Your task to perform on an android device: Search for flights from Sydney to Buenos aires Image 0: 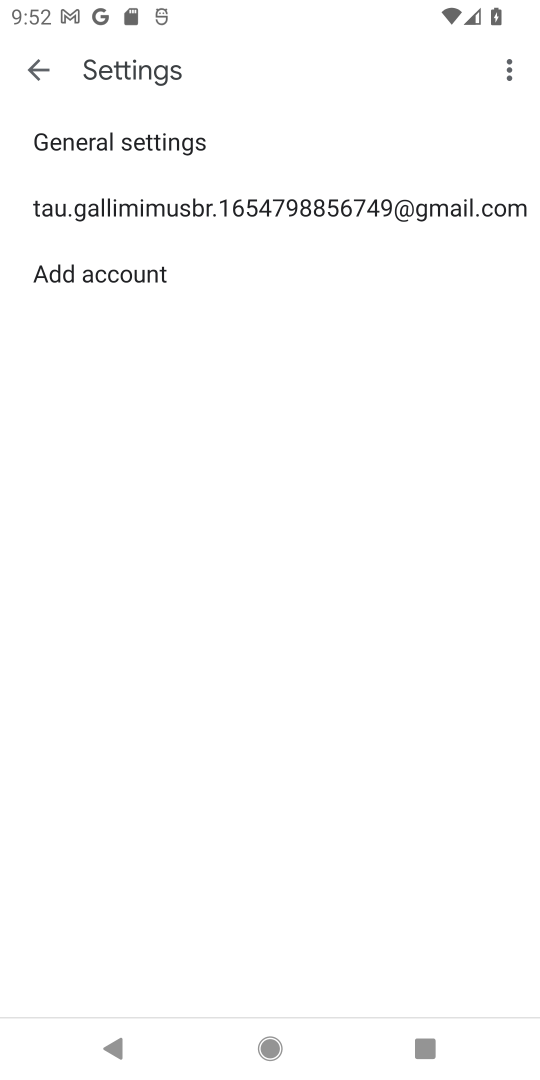
Step 0: press home button
Your task to perform on an android device: Search for flights from Sydney to Buenos aires Image 1: 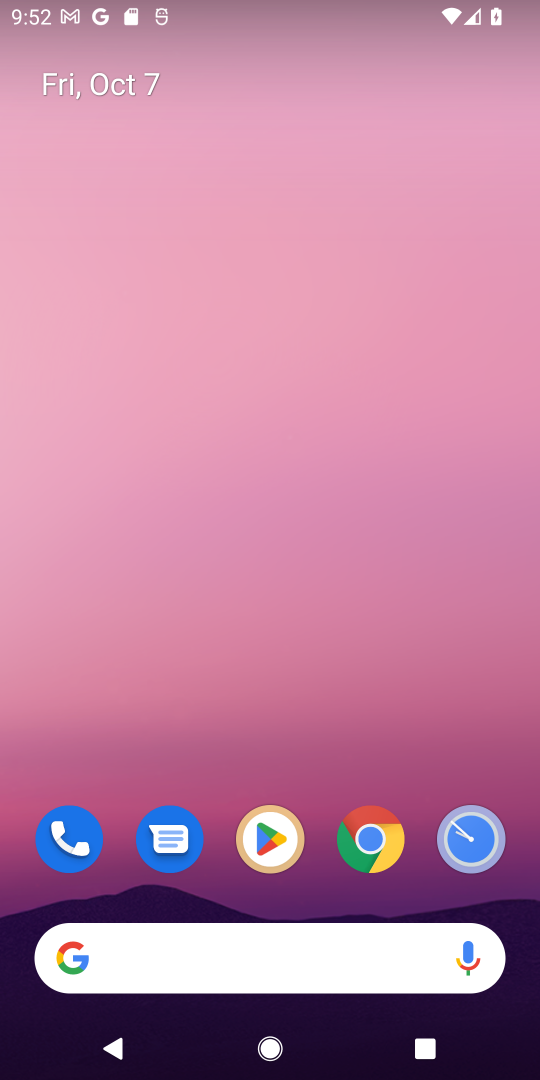
Step 1: click (361, 839)
Your task to perform on an android device: Search for flights from Sydney to Buenos aires Image 2: 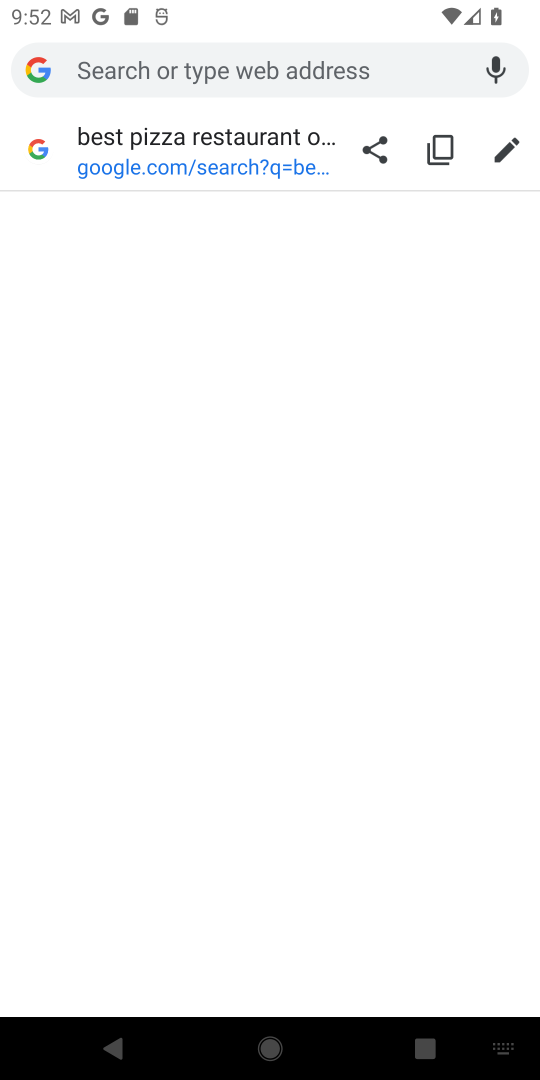
Step 2: type "flight search"
Your task to perform on an android device: Search for flights from Sydney to Buenos aires Image 3: 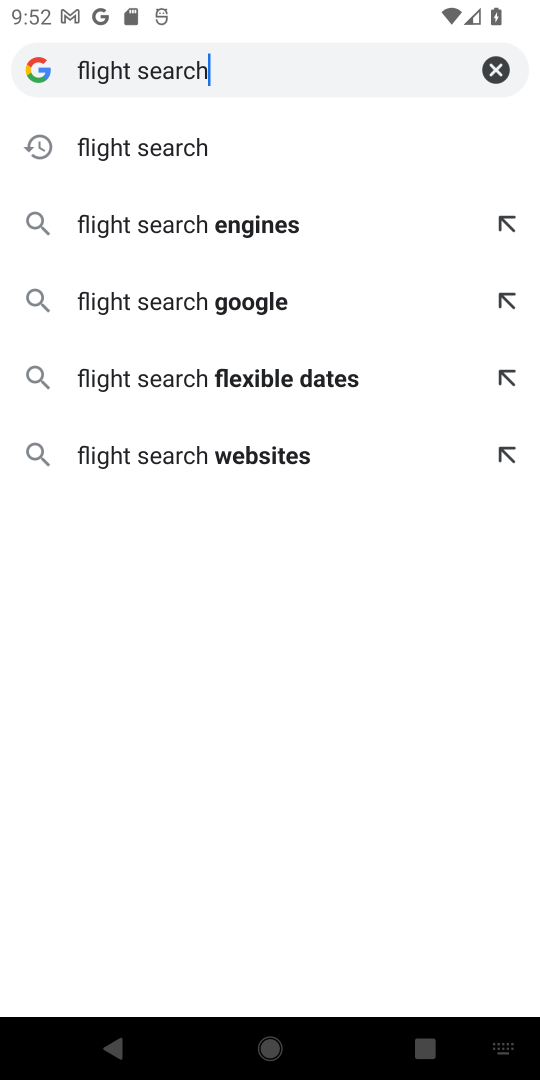
Step 3: click (139, 153)
Your task to perform on an android device: Search for flights from Sydney to Buenos aires Image 4: 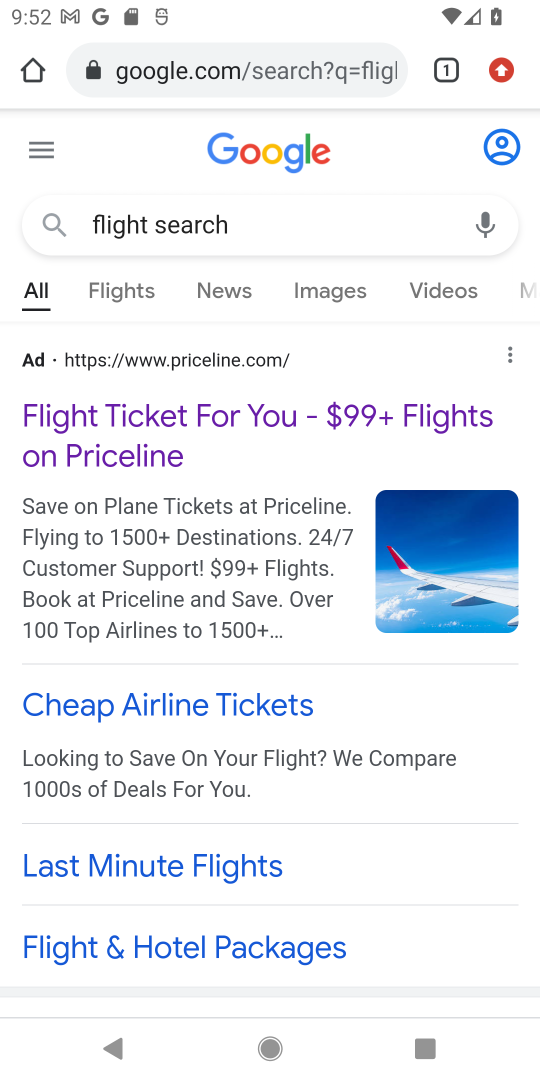
Step 4: click (142, 416)
Your task to perform on an android device: Search for flights from Sydney to Buenos aires Image 5: 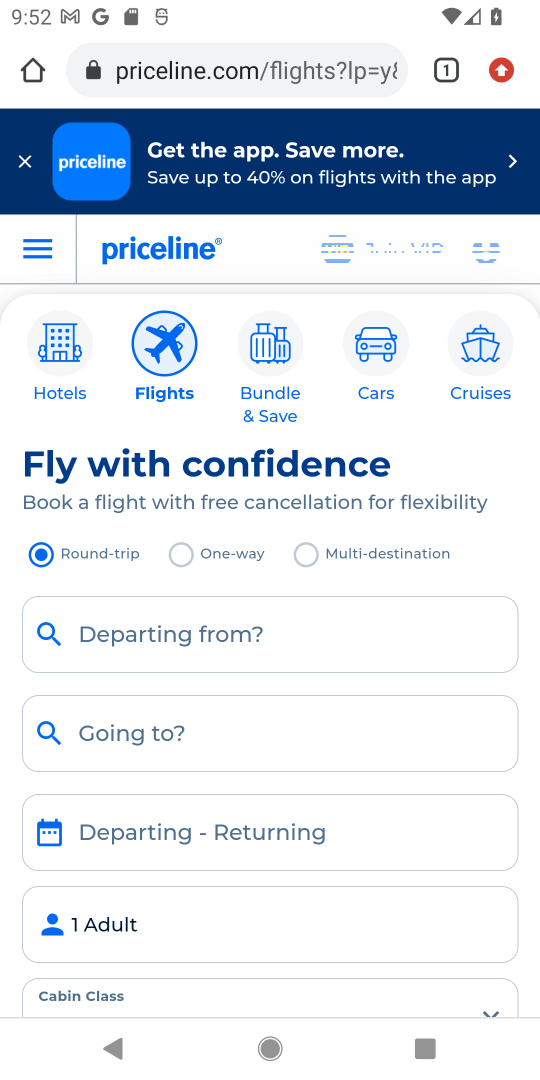
Step 5: click (234, 646)
Your task to perform on an android device: Search for flights from Sydney to Buenos aires Image 6: 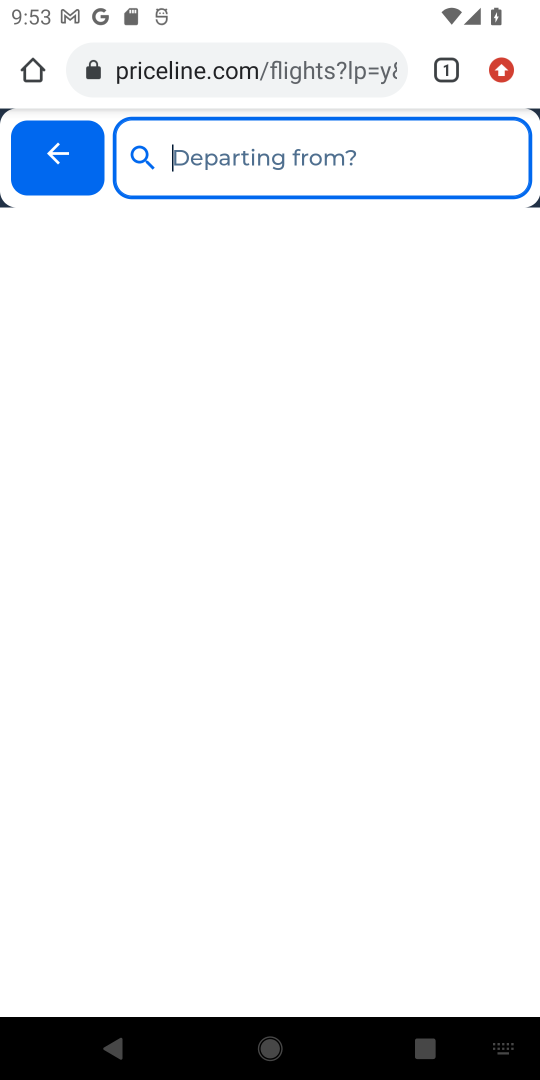
Step 6: type "sydney"
Your task to perform on an android device: Search for flights from Sydney to Buenos aires Image 7: 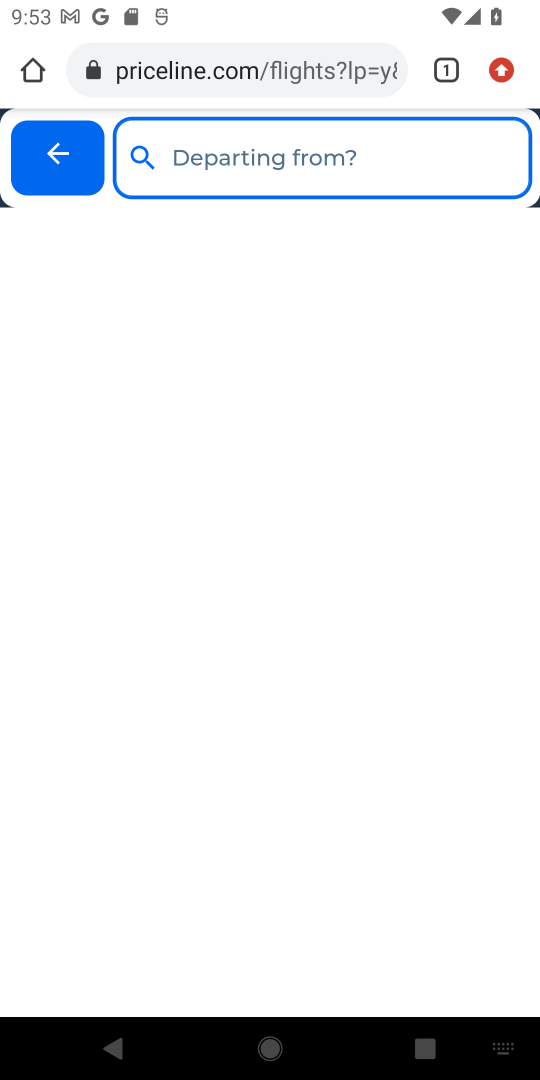
Step 7: type ""
Your task to perform on an android device: Search for flights from Sydney to Buenos aires Image 8: 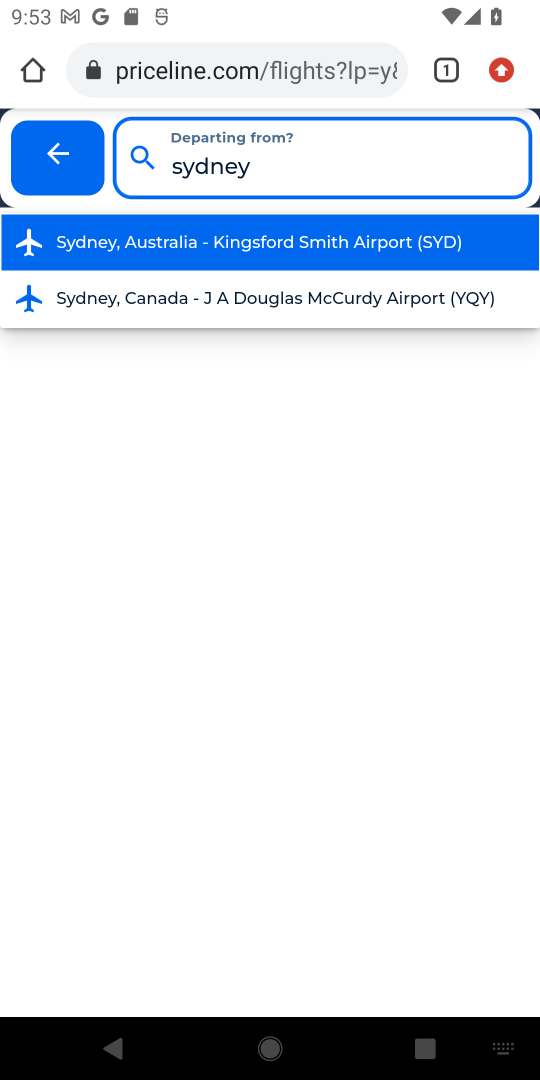
Step 8: click (182, 296)
Your task to perform on an android device: Search for flights from Sydney to Buenos aires Image 9: 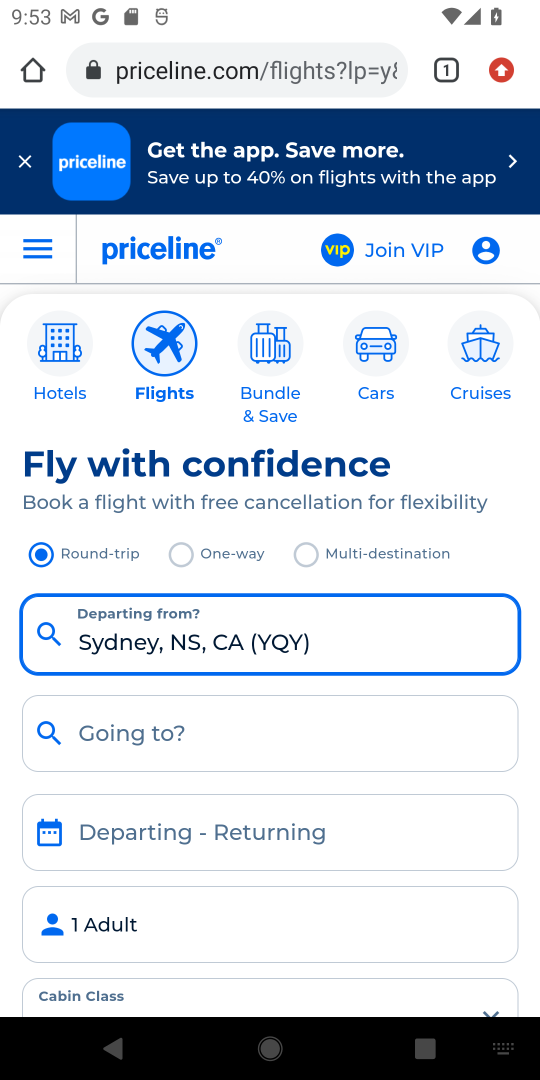
Step 9: click (92, 742)
Your task to perform on an android device: Search for flights from Sydney to Buenos aires Image 10: 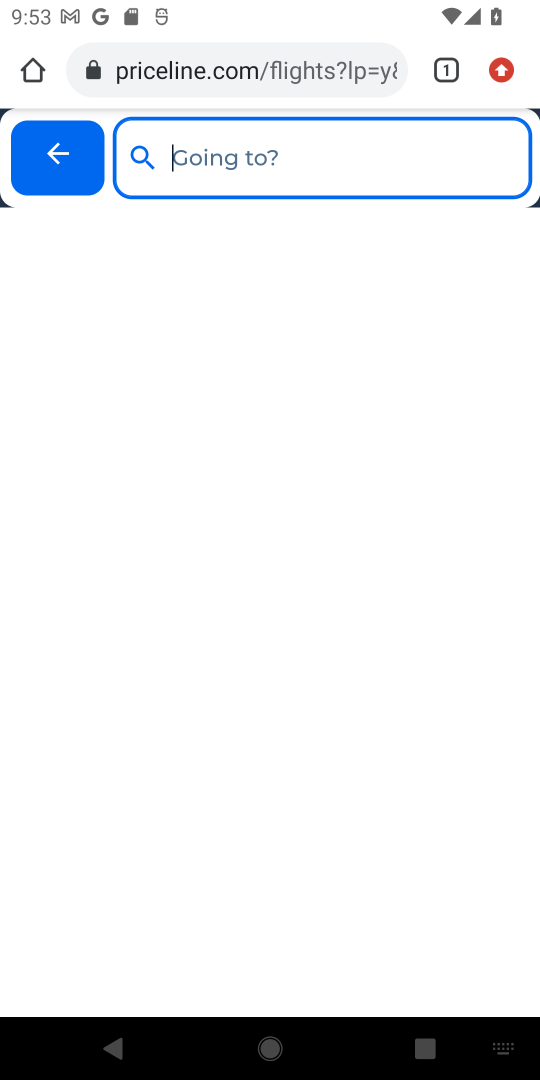
Step 10: type "buenos"
Your task to perform on an android device: Search for flights from Sydney to Buenos aires Image 11: 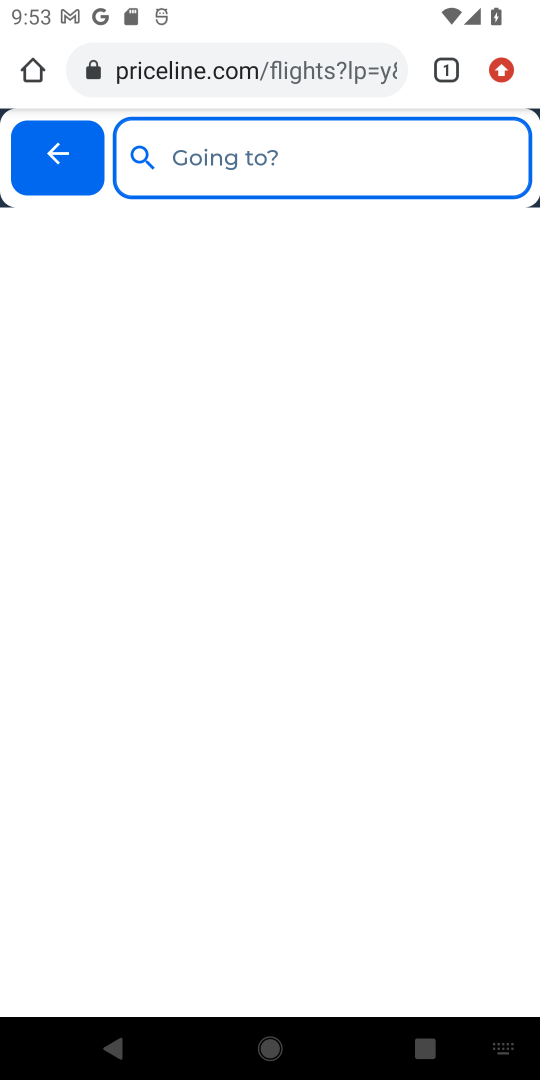
Step 11: type ""
Your task to perform on an android device: Search for flights from Sydney to Buenos aires Image 12: 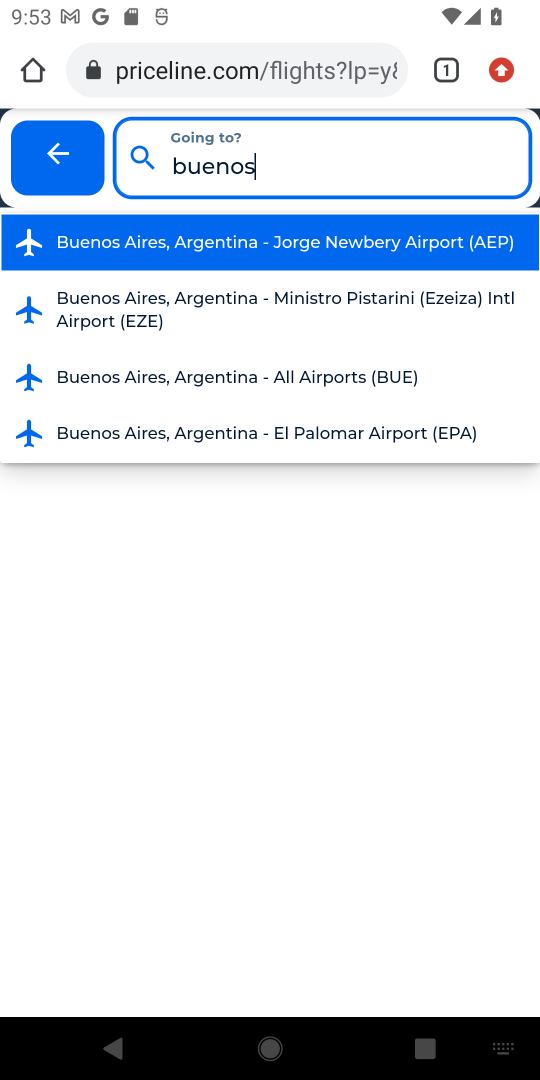
Step 12: click (110, 307)
Your task to perform on an android device: Search for flights from Sydney to Buenos aires Image 13: 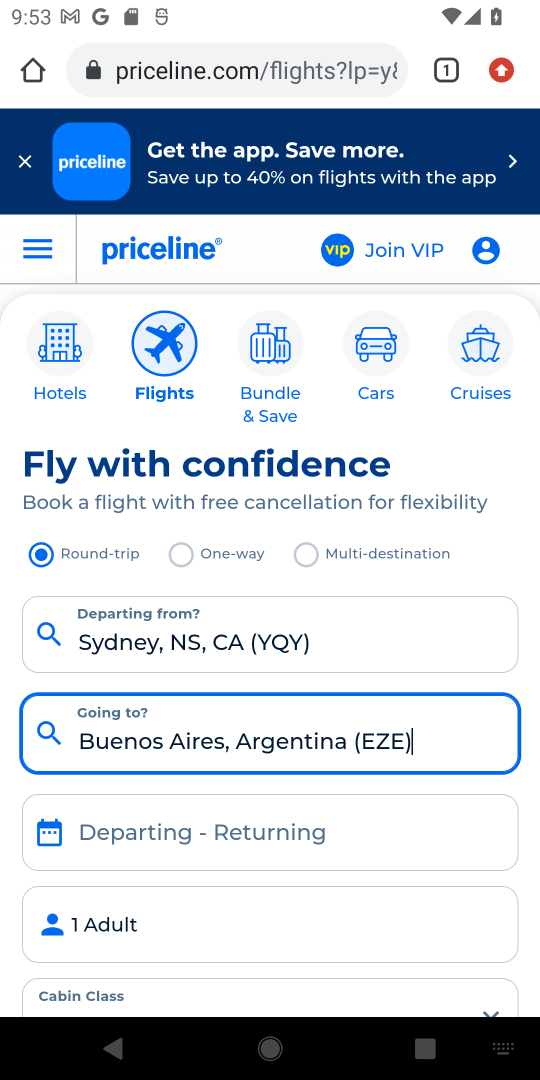
Step 13: drag from (518, 859) to (518, 458)
Your task to perform on an android device: Search for flights from Sydney to Buenos aires Image 14: 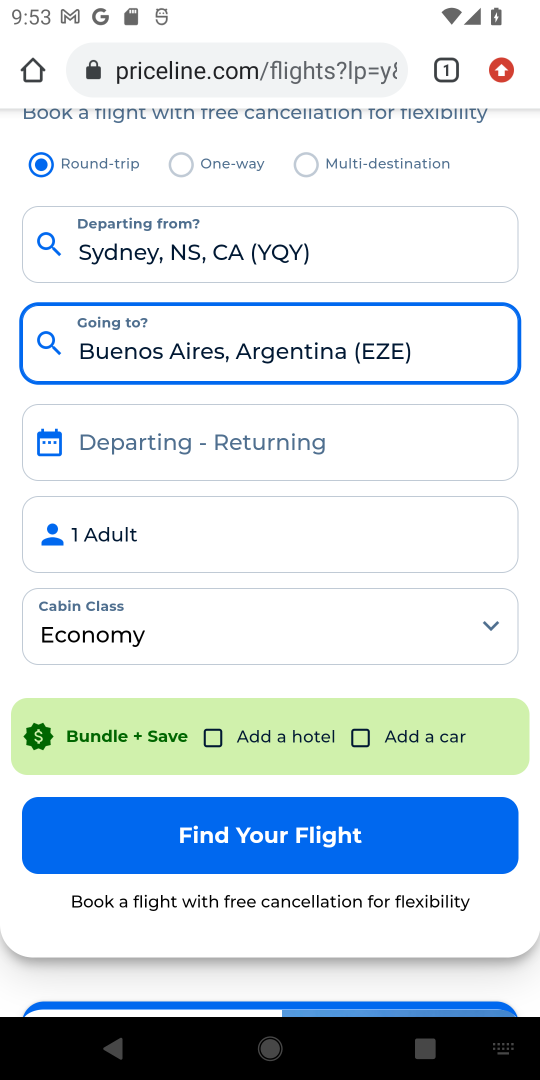
Step 14: click (117, 431)
Your task to perform on an android device: Search for flights from Sydney to Buenos aires Image 15: 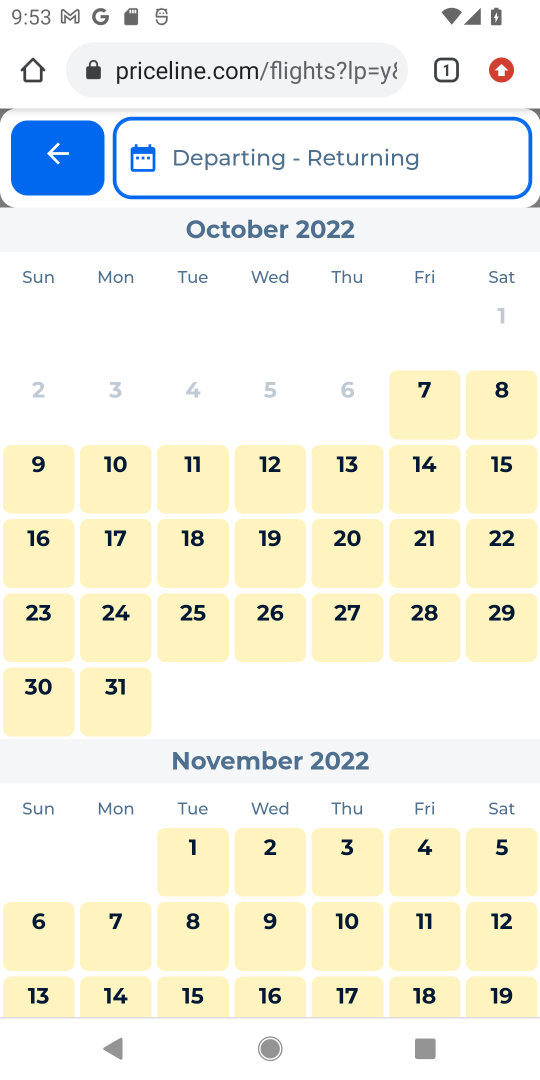
Step 15: click (200, 461)
Your task to perform on an android device: Search for flights from Sydney to Buenos aires Image 16: 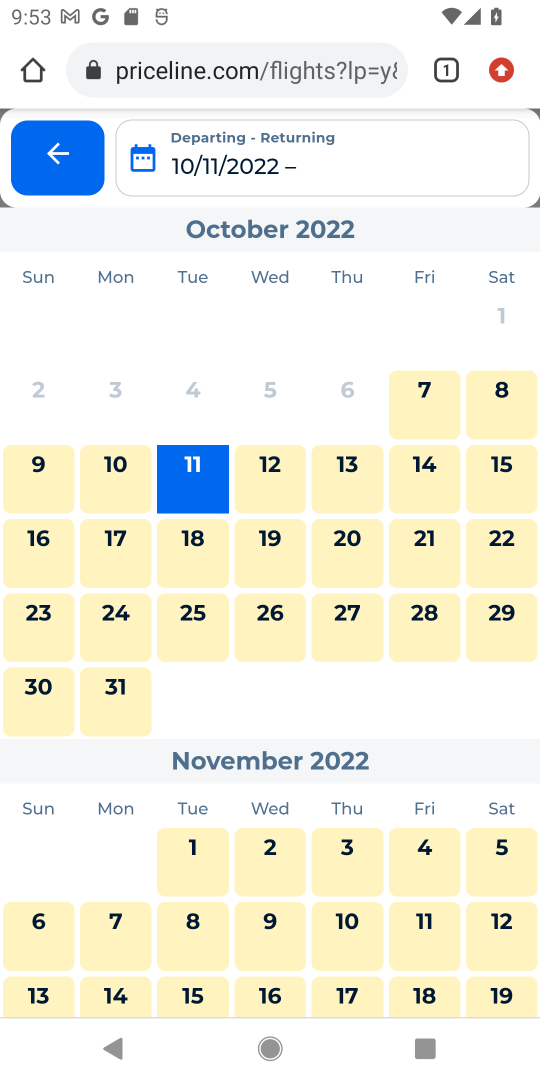
Step 16: click (412, 536)
Your task to perform on an android device: Search for flights from Sydney to Buenos aires Image 17: 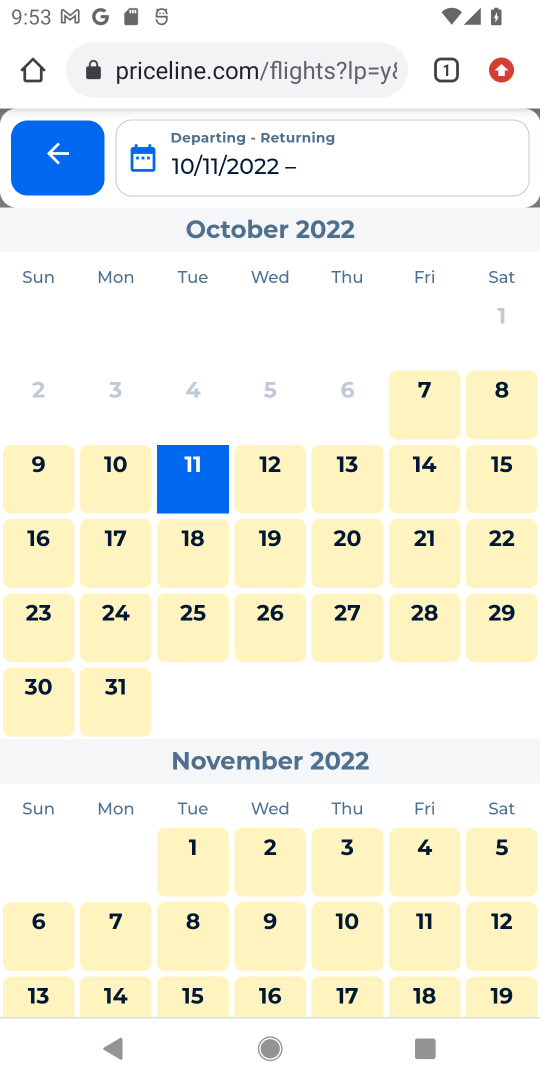
Step 17: click (428, 534)
Your task to perform on an android device: Search for flights from Sydney to Buenos aires Image 18: 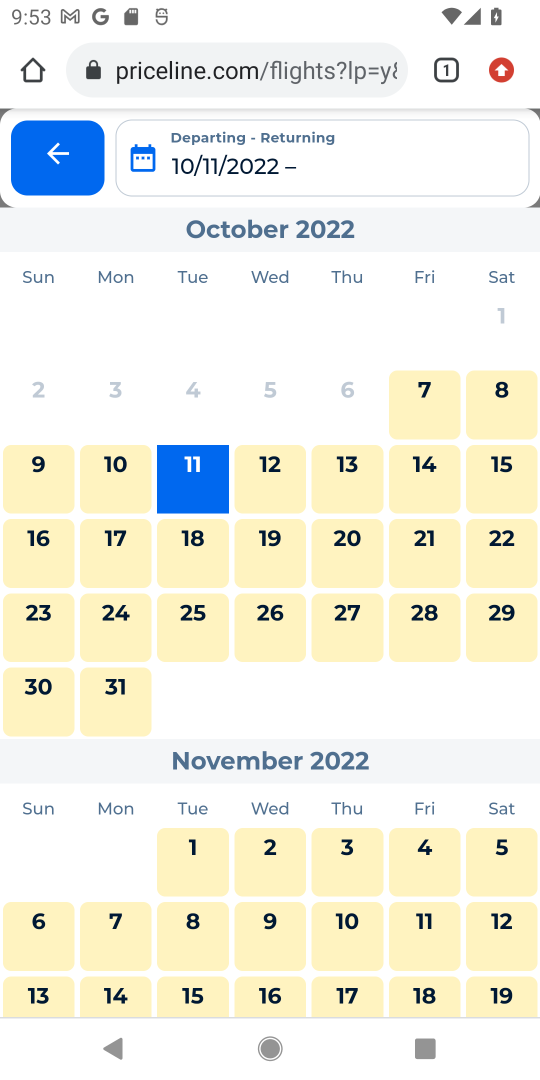
Step 18: click (337, 533)
Your task to perform on an android device: Search for flights from Sydney to Buenos aires Image 19: 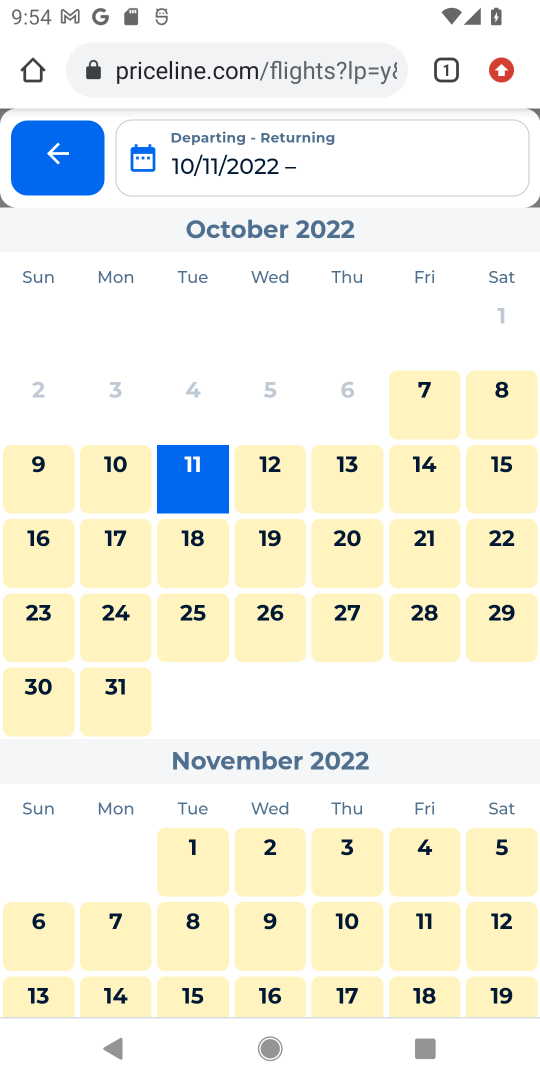
Step 19: click (301, 136)
Your task to perform on an android device: Search for flights from Sydney to Buenos aires Image 20: 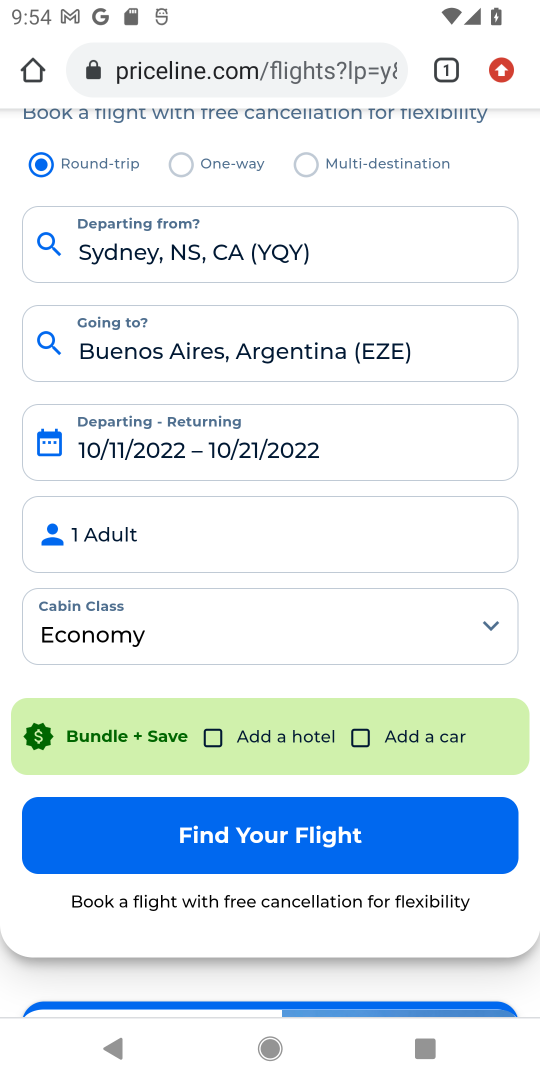
Step 20: click (198, 832)
Your task to perform on an android device: Search for flights from Sydney to Buenos aires Image 21: 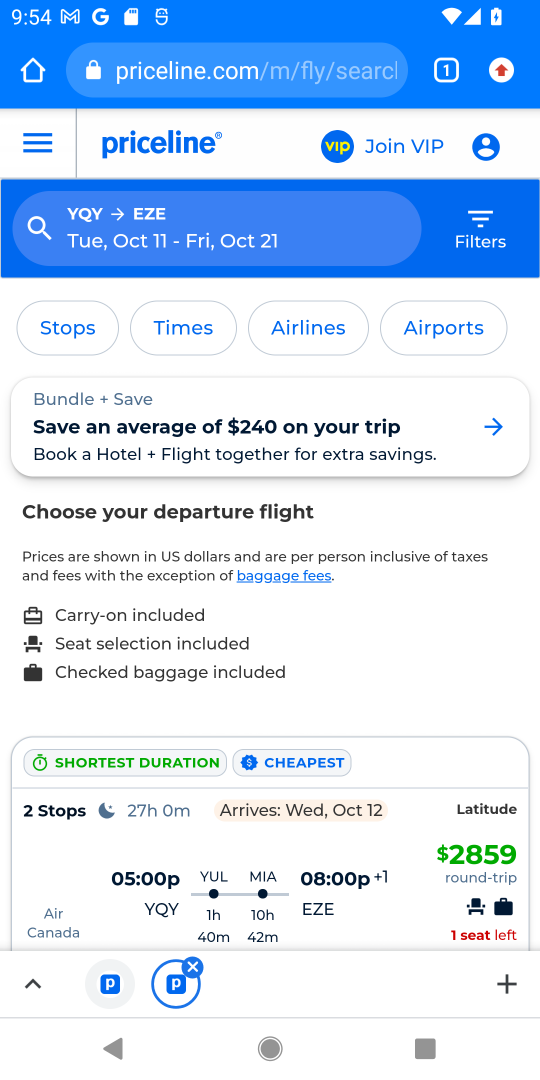
Step 21: drag from (422, 633) to (504, 334)
Your task to perform on an android device: Search for flights from Sydney to Buenos aires Image 22: 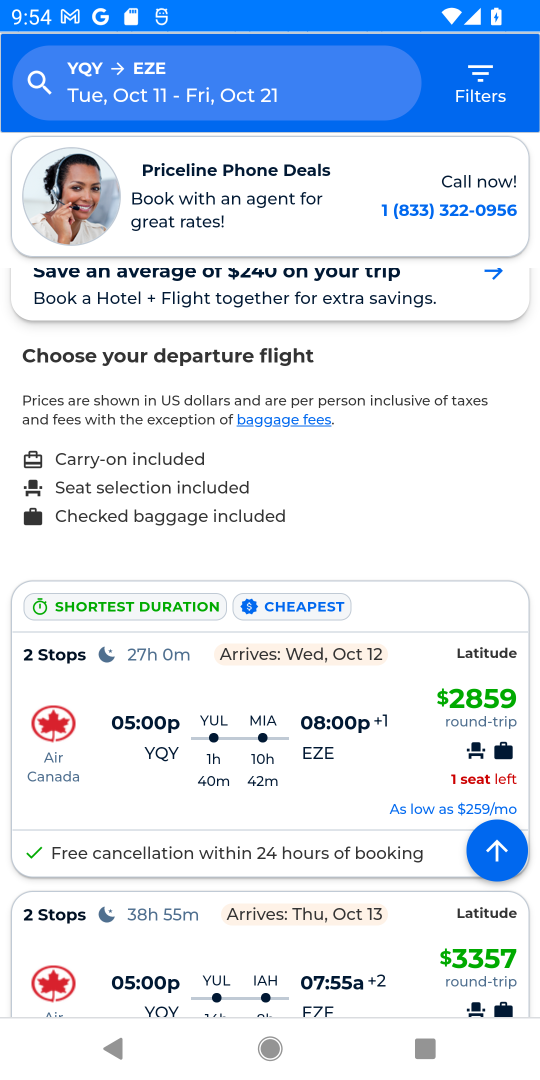
Step 22: drag from (234, 624) to (362, 327)
Your task to perform on an android device: Search for flights from Sydney to Buenos aires Image 23: 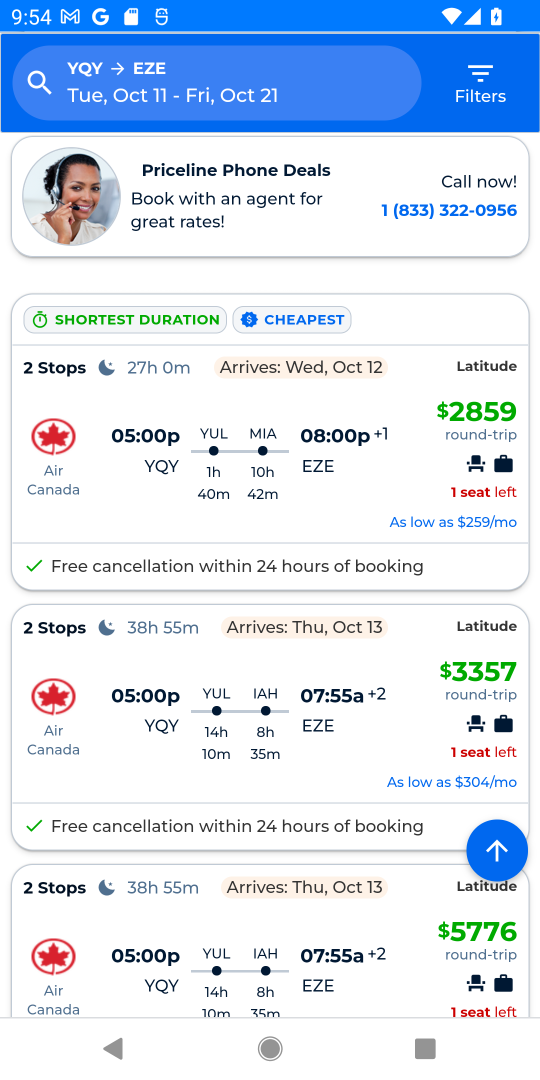
Step 23: drag from (378, 878) to (506, 374)
Your task to perform on an android device: Search for flights from Sydney to Buenos aires Image 24: 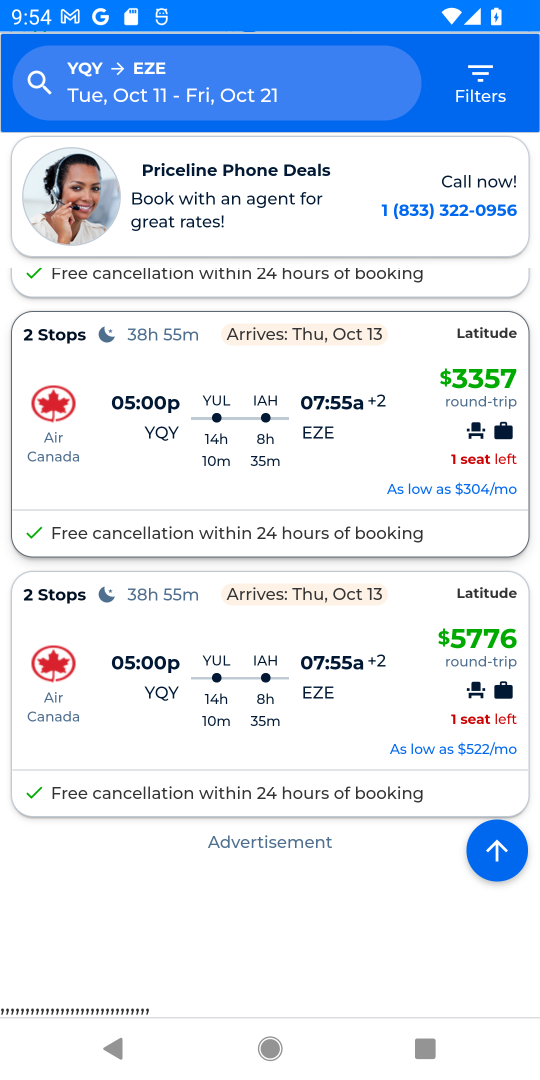
Step 24: drag from (376, 522) to (464, 322)
Your task to perform on an android device: Search for flights from Sydney to Buenos aires Image 25: 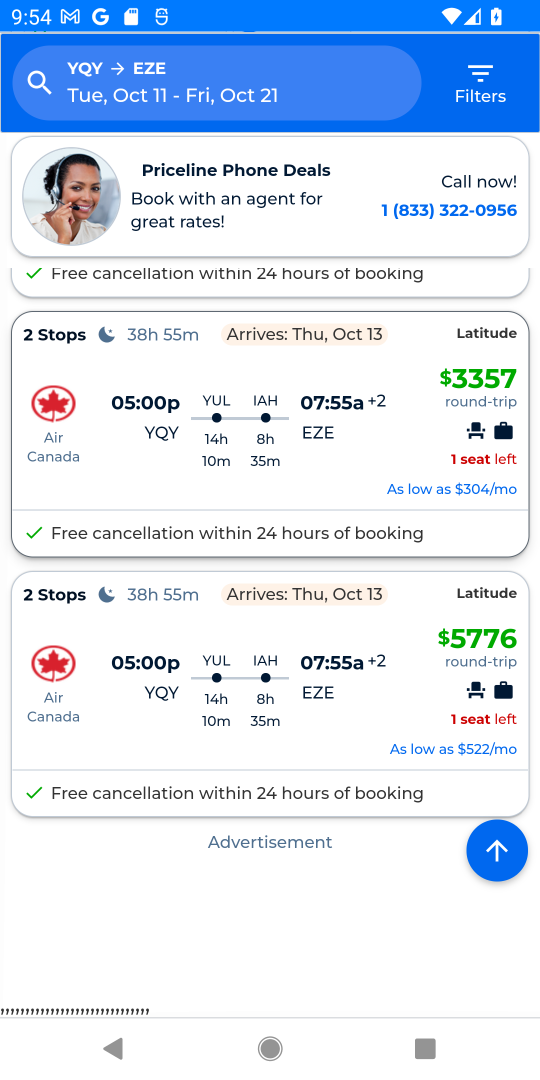
Step 25: drag from (470, 312) to (482, 769)
Your task to perform on an android device: Search for flights from Sydney to Buenos aires Image 26: 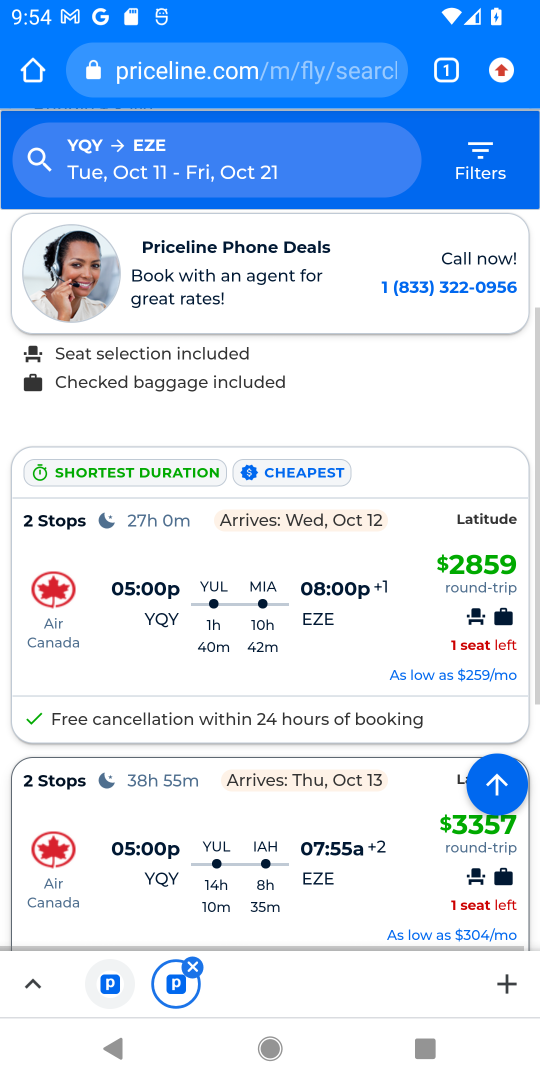
Step 26: drag from (512, 506) to (497, 816)
Your task to perform on an android device: Search for flights from Sydney to Buenos aires Image 27: 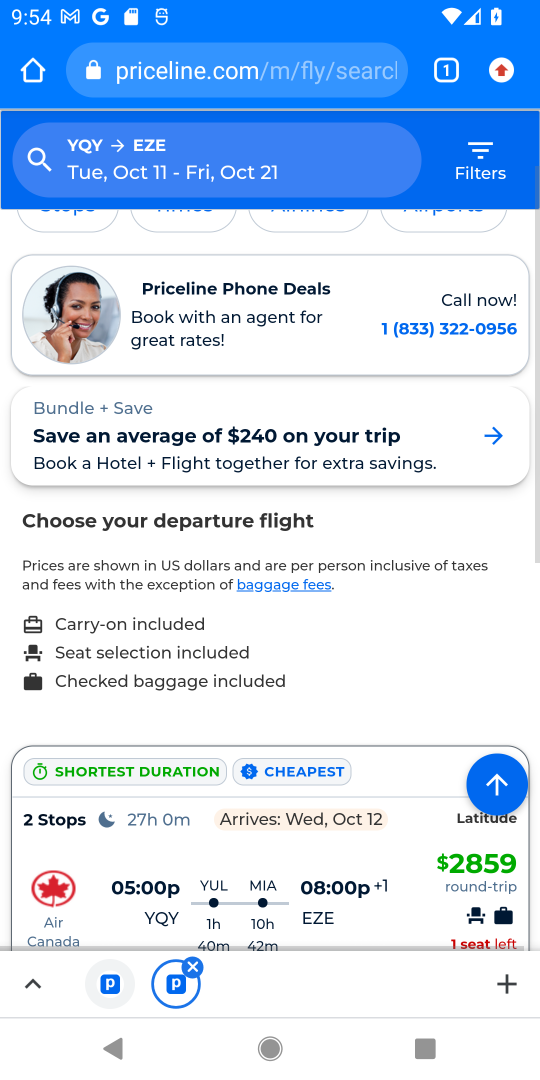
Step 27: drag from (396, 514) to (380, 734)
Your task to perform on an android device: Search for flights from Sydney to Buenos aires Image 28: 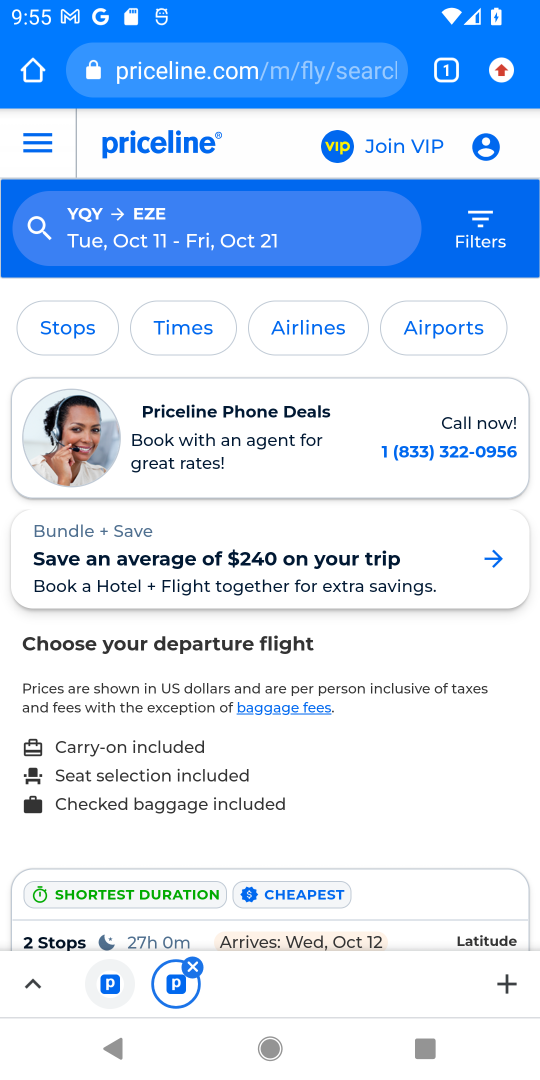
Step 28: drag from (500, 750) to (459, 148)
Your task to perform on an android device: Search for flights from Sydney to Buenos aires Image 29: 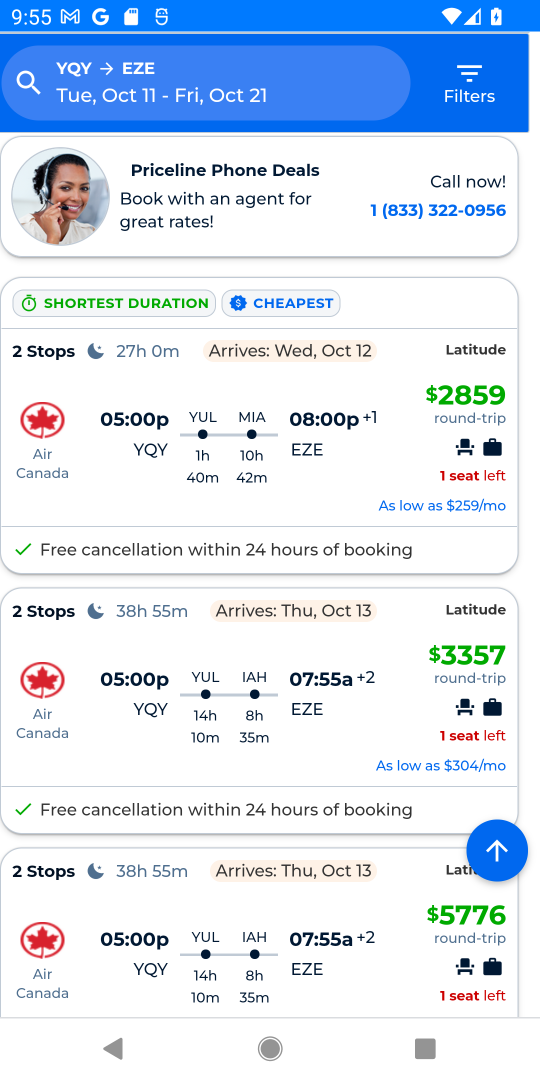
Step 29: drag from (248, 774) to (363, 342)
Your task to perform on an android device: Search for flights from Sydney to Buenos aires Image 30: 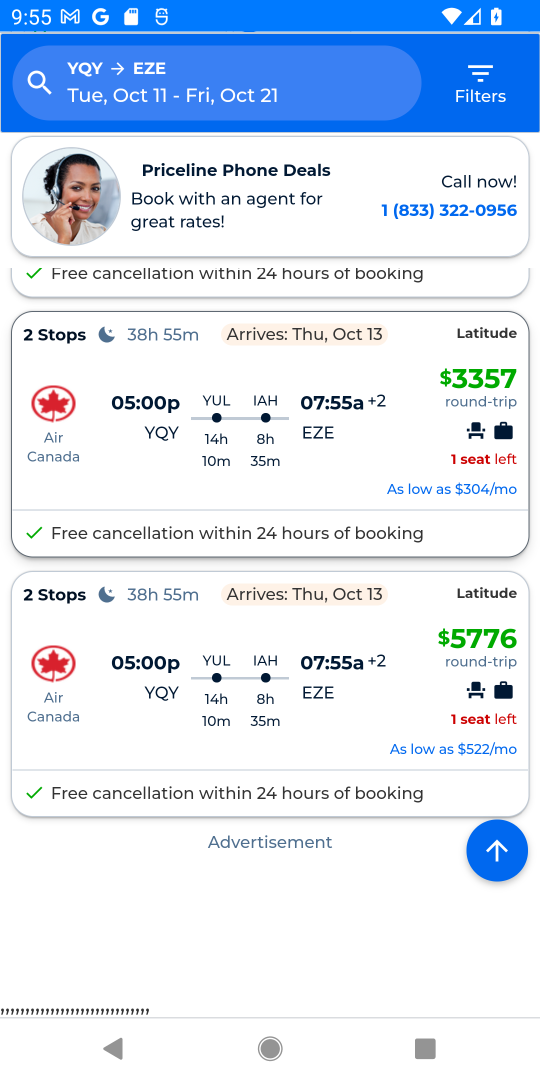
Step 30: drag from (296, 938) to (379, 608)
Your task to perform on an android device: Search for flights from Sydney to Buenos aires Image 31: 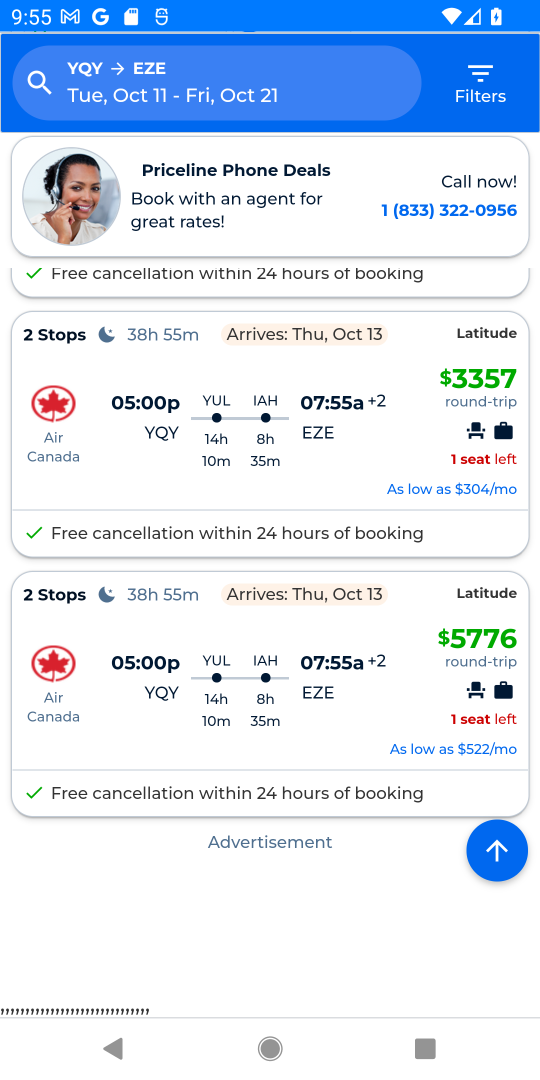
Step 31: click (523, 837)
Your task to perform on an android device: Search for flights from Sydney to Buenos aires Image 32: 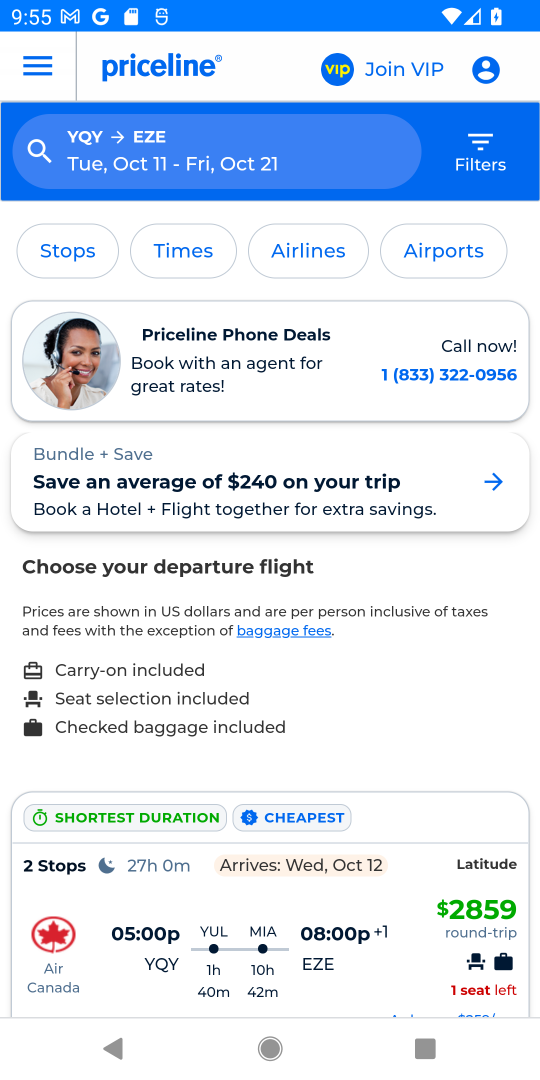
Step 32: task complete